Your task to perform on an android device: add a contact Image 0: 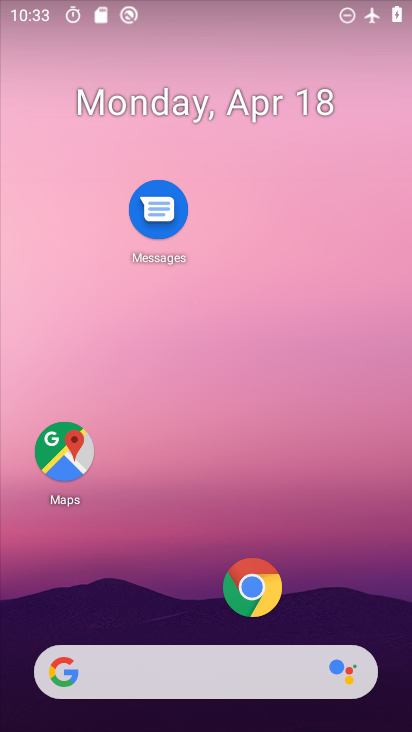
Step 0: drag from (192, 606) to (411, 342)
Your task to perform on an android device: add a contact Image 1: 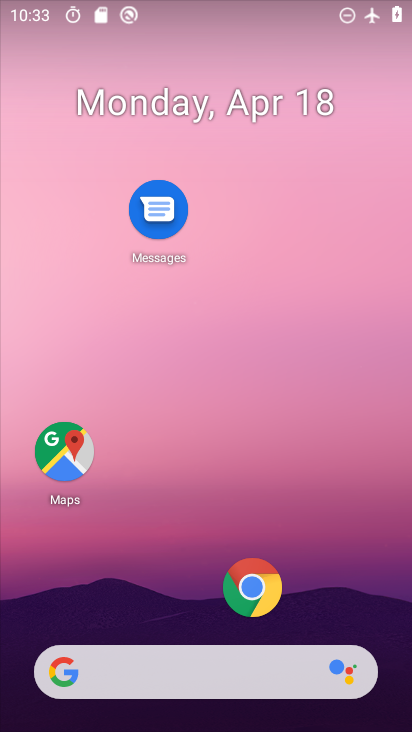
Step 1: drag from (156, 580) to (163, 12)
Your task to perform on an android device: add a contact Image 2: 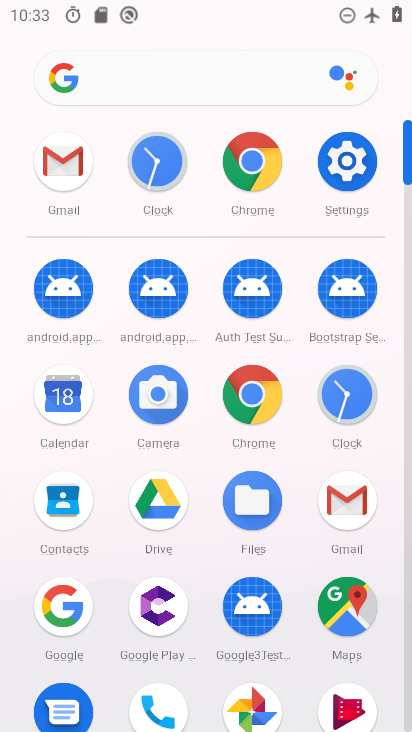
Step 2: click (78, 508)
Your task to perform on an android device: add a contact Image 3: 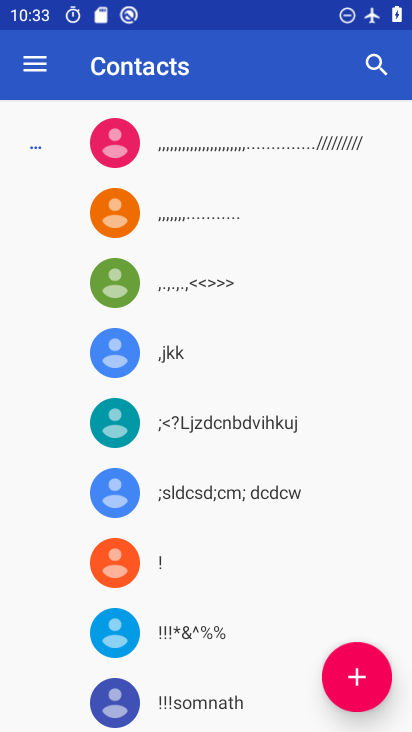
Step 3: click (362, 685)
Your task to perform on an android device: add a contact Image 4: 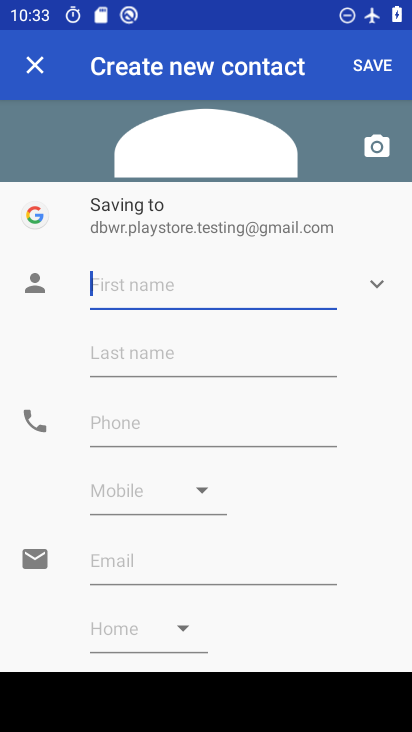
Step 4: type "freak"
Your task to perform on an android device: add a contact Image 5: 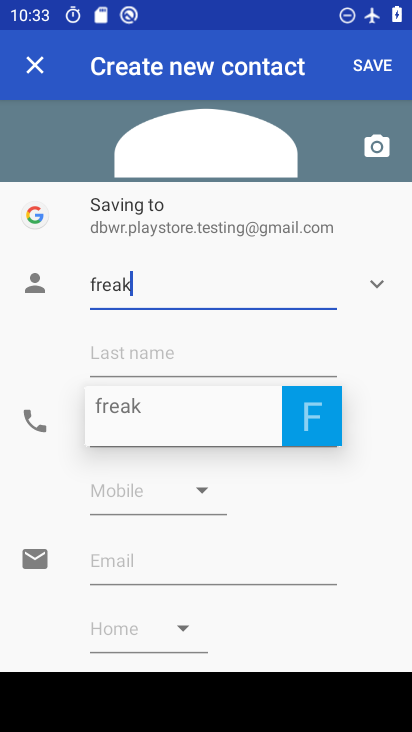
Step 5: type "ding"
Your task to perform on an android device: add a contact Image 6: 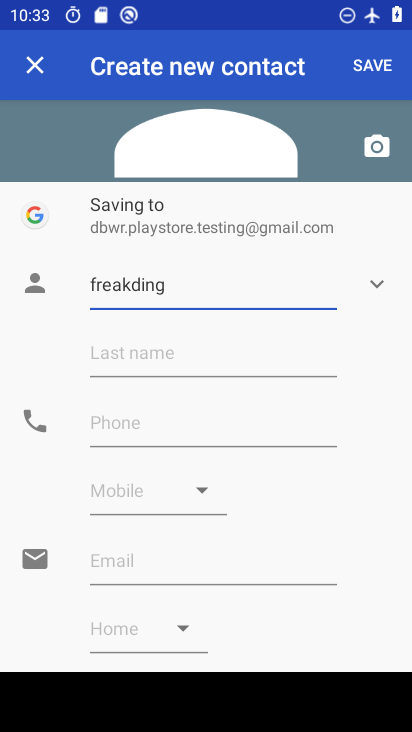
Step 6: click (374, 65)
Your task to perform on an android device: add a contact Image 7: 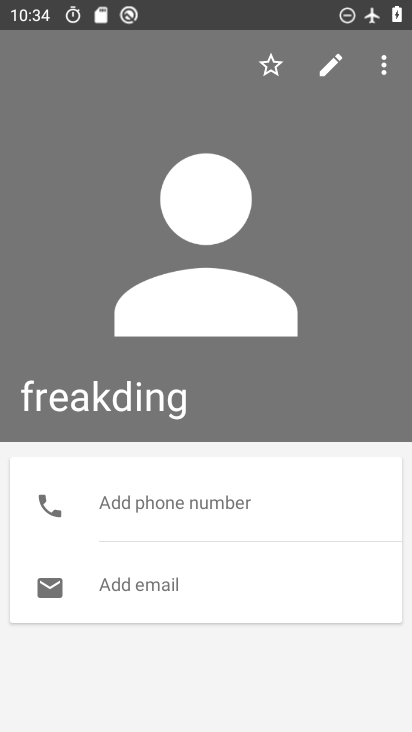
Step 7: task complete